Your task to perform on an android device: Open the calendar and show me this week's events Image 0: 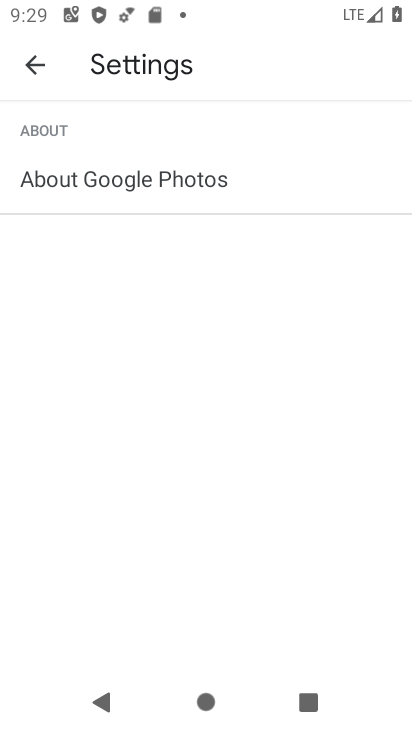
Step 0: press home button
Your task to perform on an android device: Open the calendar and show me this week's events Image 1: 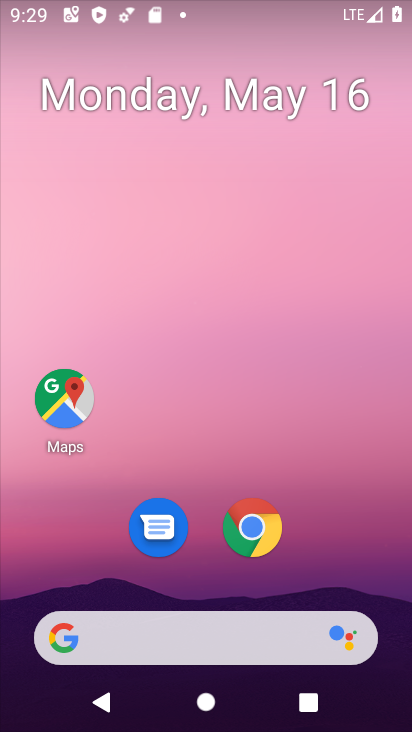
Step 1: drag from (344, 586) to (255, 8)
Your task to perform on an android device: Open the calendar and show me this week's events Image 2: 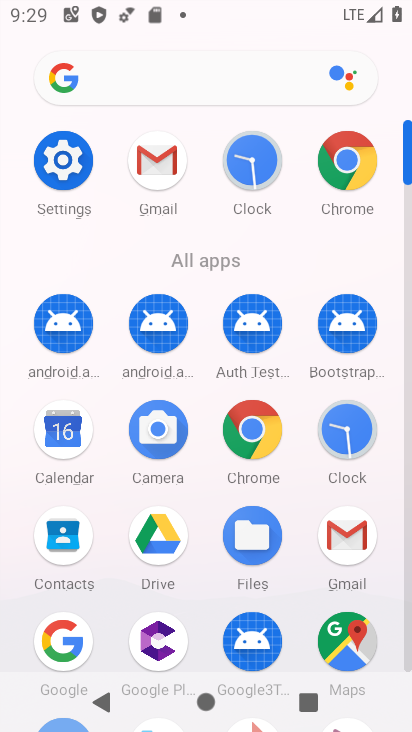
Step 2: click (52, 429)
Your task to perform on an android device: Open the calendar and show me this week's events Image 3: 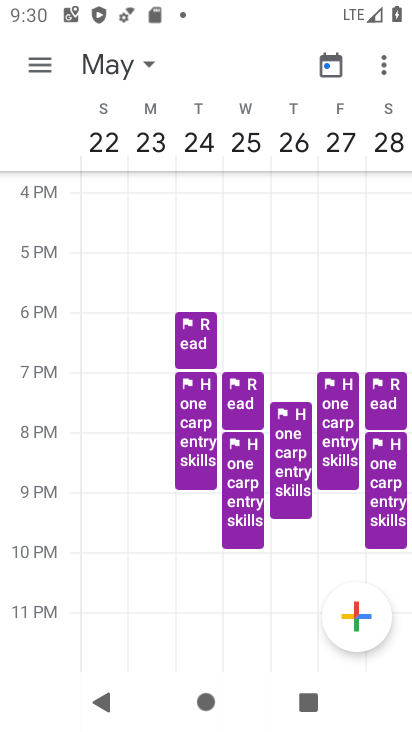
Step 3: click (336, 70)
Your task to perform on an android device: Open the calendar and show me this week's events Image 4: 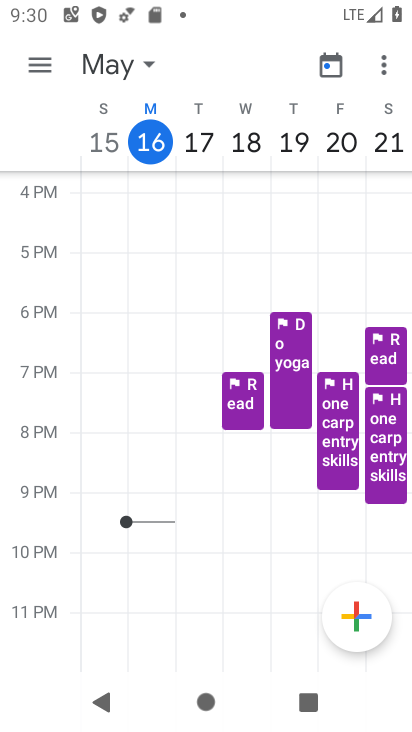
Step 4: task complete